Your task to perform on an android device: Open calendar and show me the first week of next month Image 0: 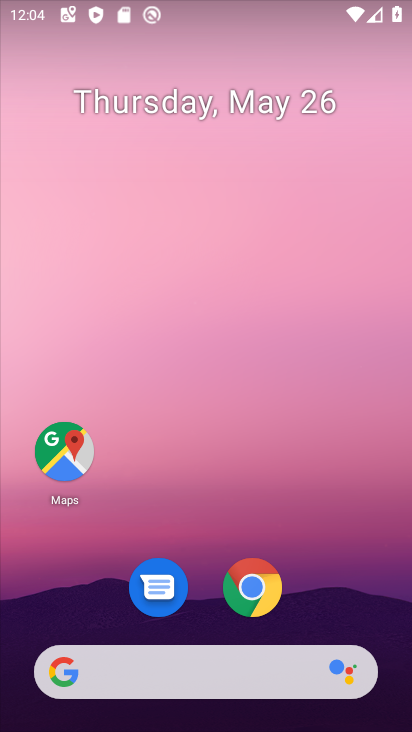
Step 0: drag from (214, 622) to (208, 31)
Your task to perform on an android device: Open calendar and show me the first week of next month Image 1: 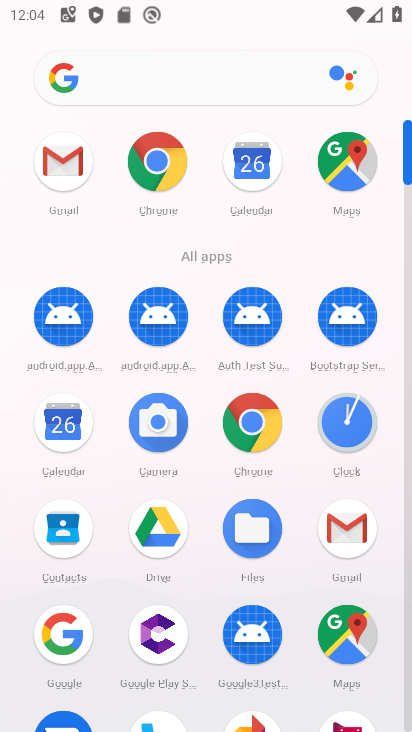
Step 1: click (59, 419)
Your task to perform on an android device: Open calendar and show me the first week of next month Image 2: 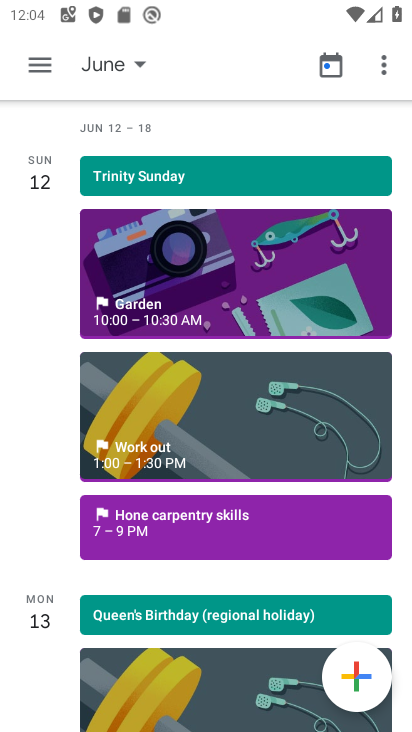
Step 2: click (133, 64)
Your task to perform on an android device: Open calendar and show me the first week of next month Image 3: 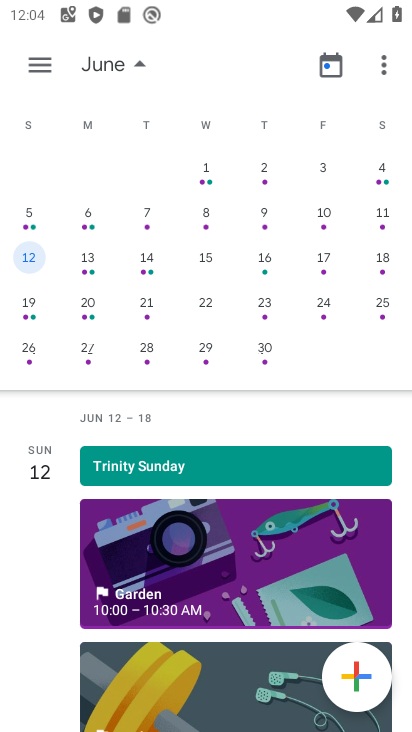
Step 3: click (203, 171)
Your task to perform on an android device: Open calendar and show me the first week of next month Image 4: 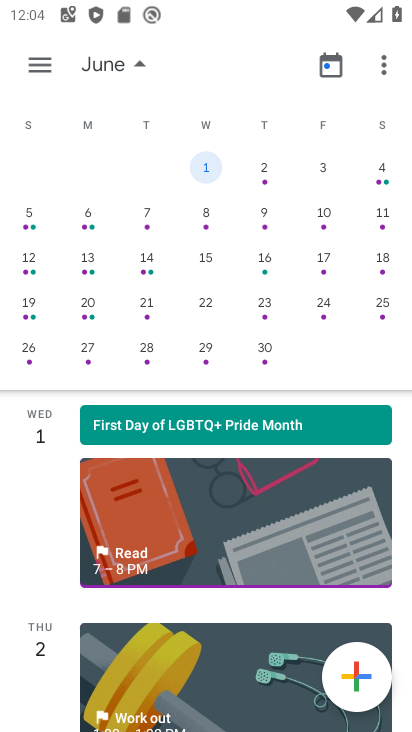
Step 4: click (138, 54)
Your task to perform on an android device: Open calendar and show me the first week of next month Image 5: 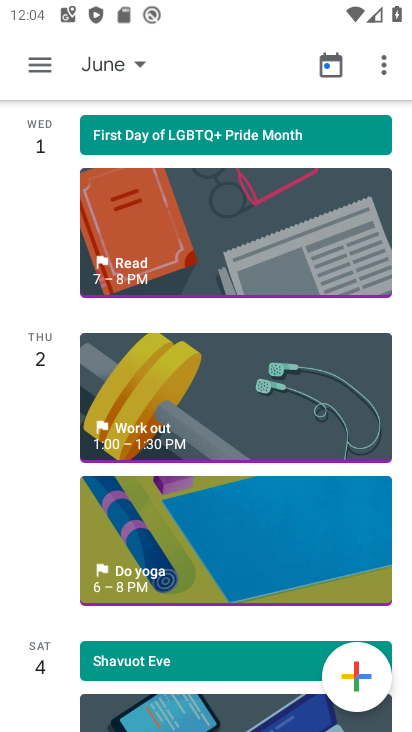
Step 5: task complete